Your task to perform on an android device: Search for a new lawnmower on Lowes.com Image 0: 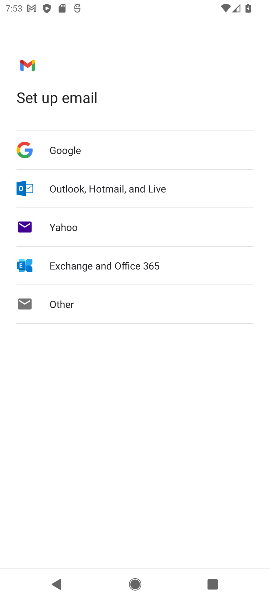
Step 0: press home button
Your task to perform on an android device: Search for a new lawnmower on Lowes.com Image 1: 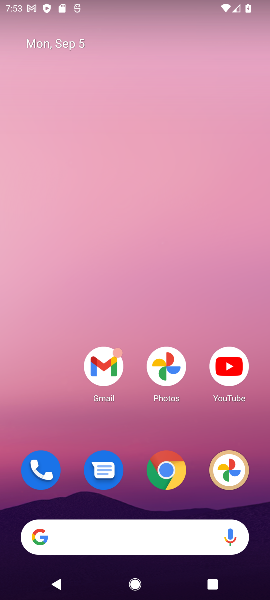
Step 1: drag from (108, 411) to (113, 40)
Your task to perform on an android device: Search for a new lawnmower on Lowes.com Image 2: 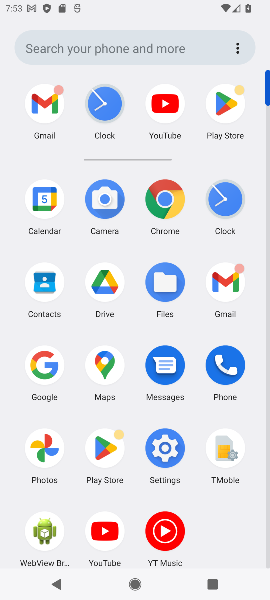
Step 2: click (164, 203)
Your task to perform on an android device: Search for a new lawnmower on Lowes.com Image 3: 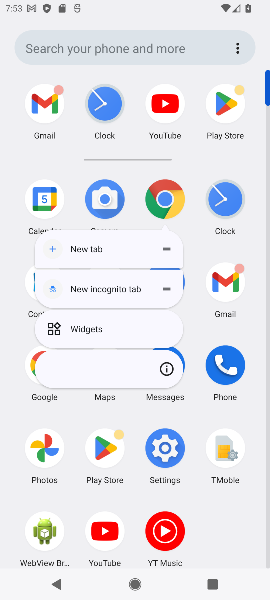
Step 3: click (168, 215)
Your task to perform on an android device: Search for a new lawnmower on Lowes.com Image 4: 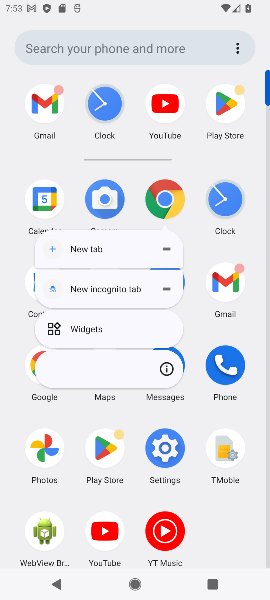
Step 4: click (168, 203)
Your task to perform on an android device: Search for a new lawnmower on Lowes.com Image 5: 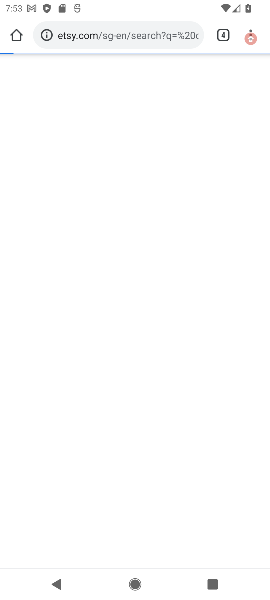
Step 5: click (93, 46)
Your task to perform on an android device: Search for a new lawnmower on Lowes.com Image 6: 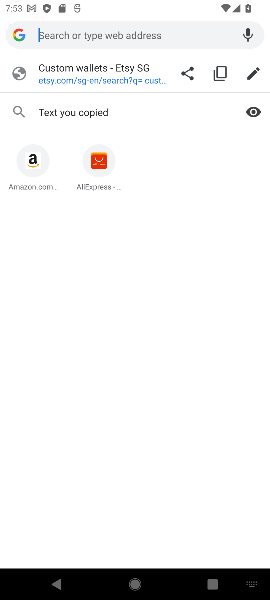
Step 6: type "Lowes.com"
Your task to perform on an android device: Search for a new lawnmower on Lowes.com Image 7: 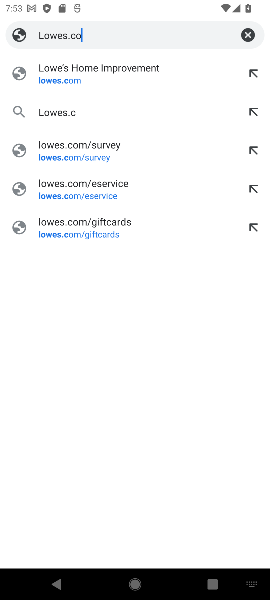
Step 7: type ""
Your task to perform on an android device: Search for a new lawnmower on Lowes.com Image 8: 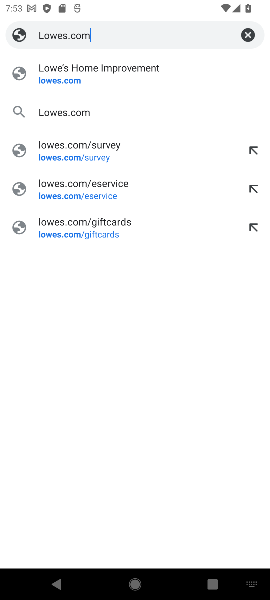
Step 8: click (68, 69)
Your task to perform on an android device: Search for a new lawnmower on Lowes.com Image 9: 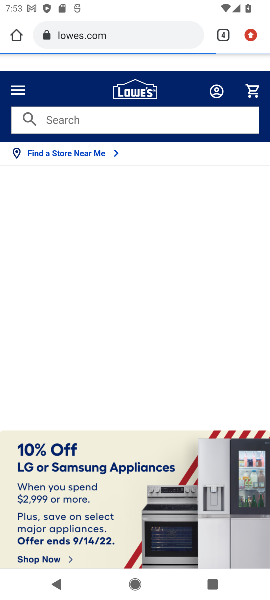
Step 9: click (86, 124)
Your task to perform on an android device: Search for a new lawnmower on Lowes.com Image 10: 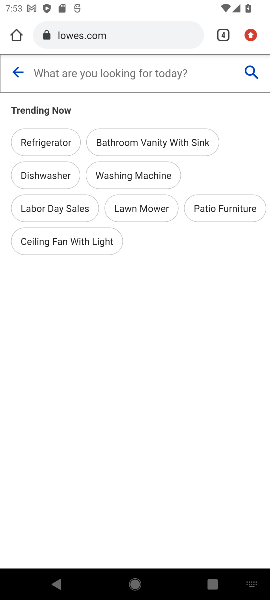
Step 10: type "a new lawnmower"
Your task to perform on an android device: Search for a new lawnmower on Lowes.com Image 11: 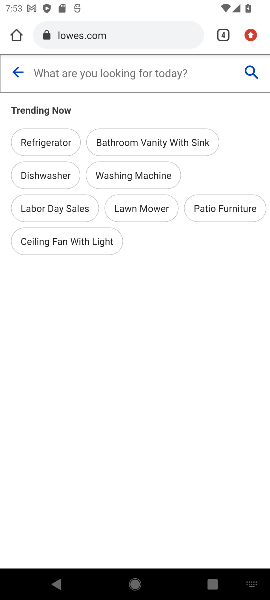
Step 11: type ""
Your task to perform on an android device: Search for a new lawnmower on Lowes.com Image 12: 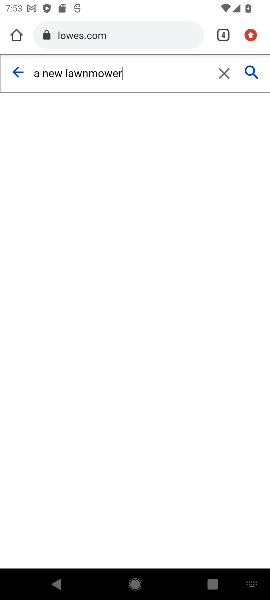
Step 12: click (246, 74)
Your task to perform on an android device: Search for a new lawnmower on Lowes.com Image 13: 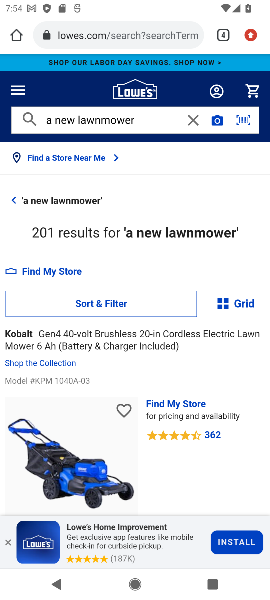
Step 13: click (110, 227)
Your task to perform on an android device: Search for a new lawnmower on Lowes.com Image 14: 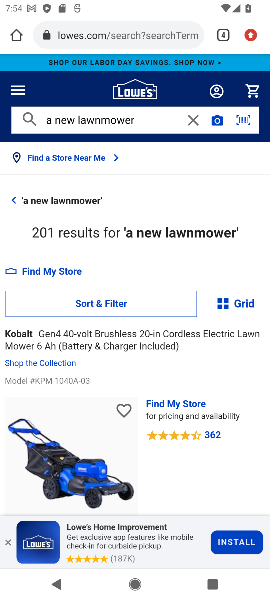
Step 14: task complete